Your task to perform on an android device: turn on wifi Image 0: 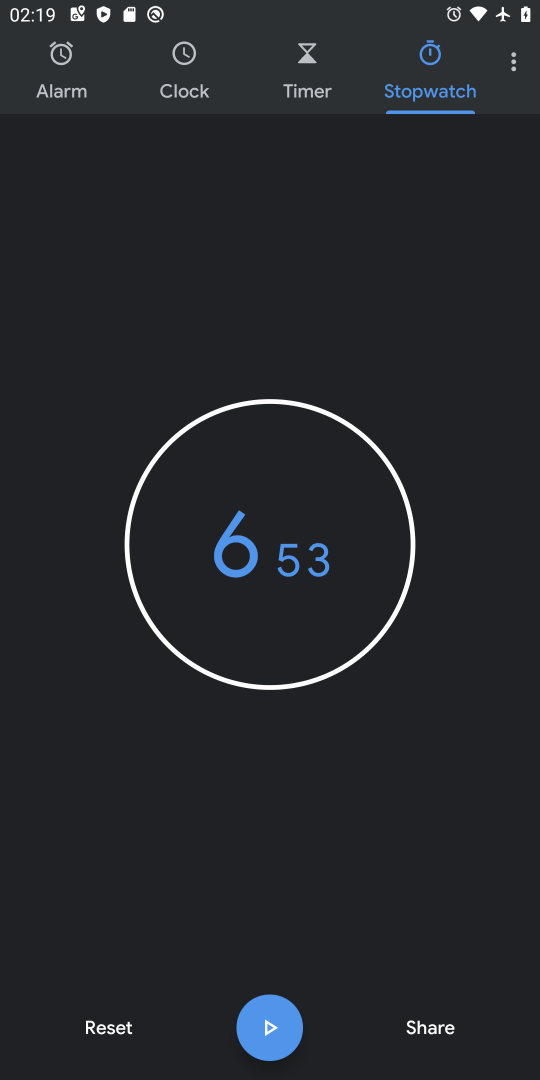
Step 0: press home button
Your task to perform on an android device: turn on wifi Image 1: 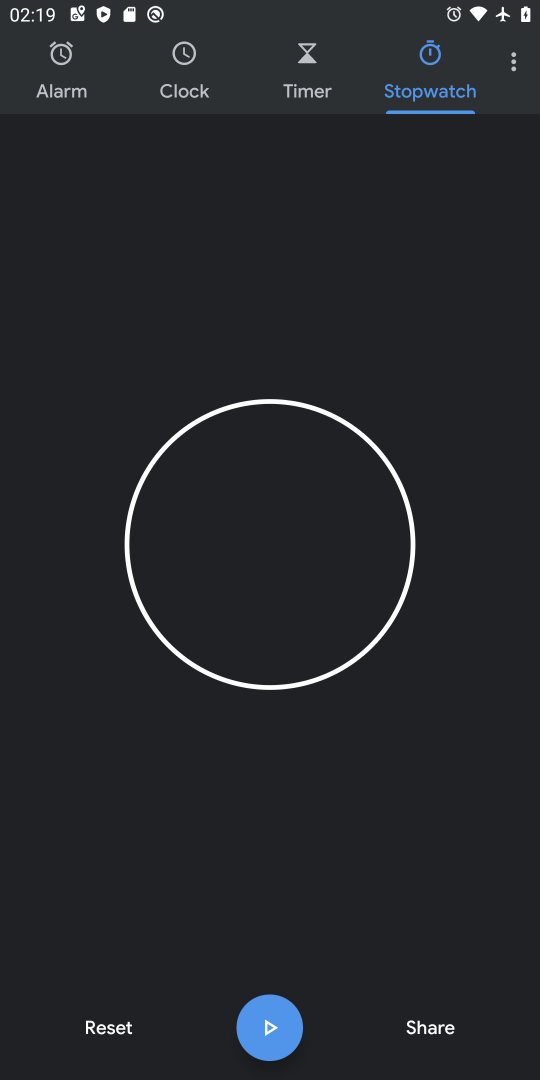
Step 1: press home button
Your task to perform on an android device: turn on wifi Image 2: 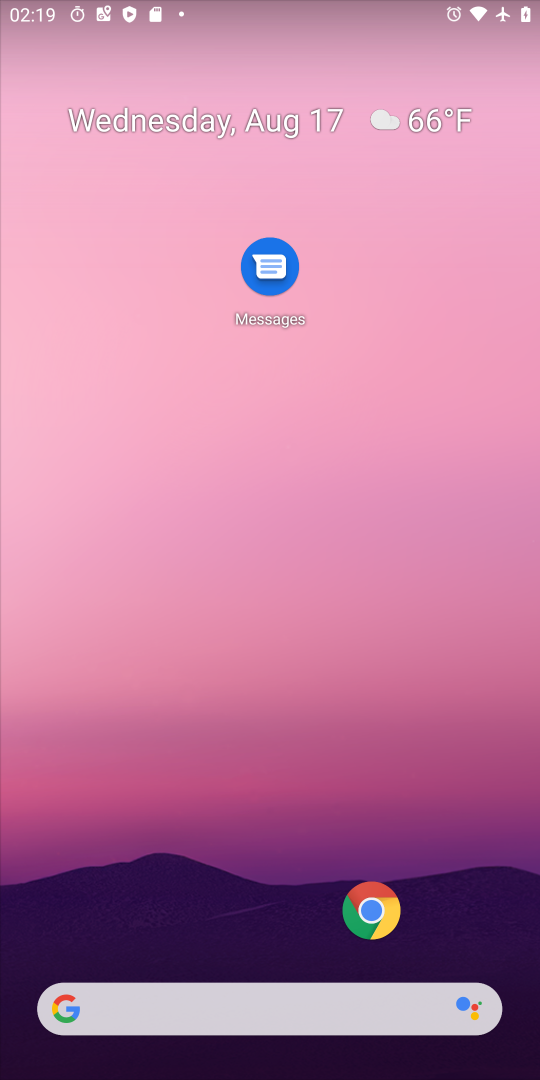
Step 2: drag from (197, 832) to (248, 81)
Your task to perform on an android device: turn on wifi Image 3: 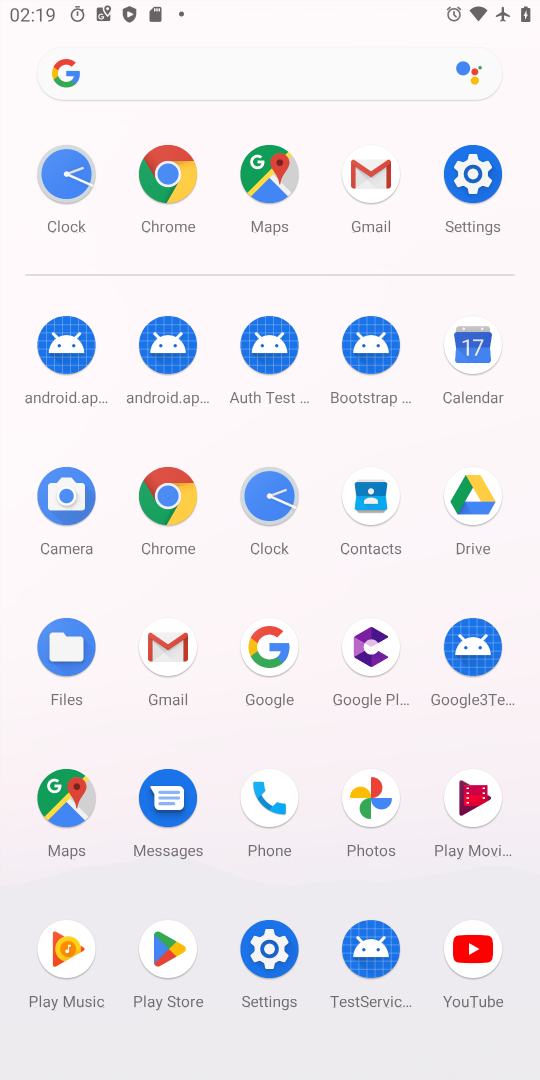
Step 3: click (263, 946)
Your task to perform on an android device: turn on wifi Image 4: 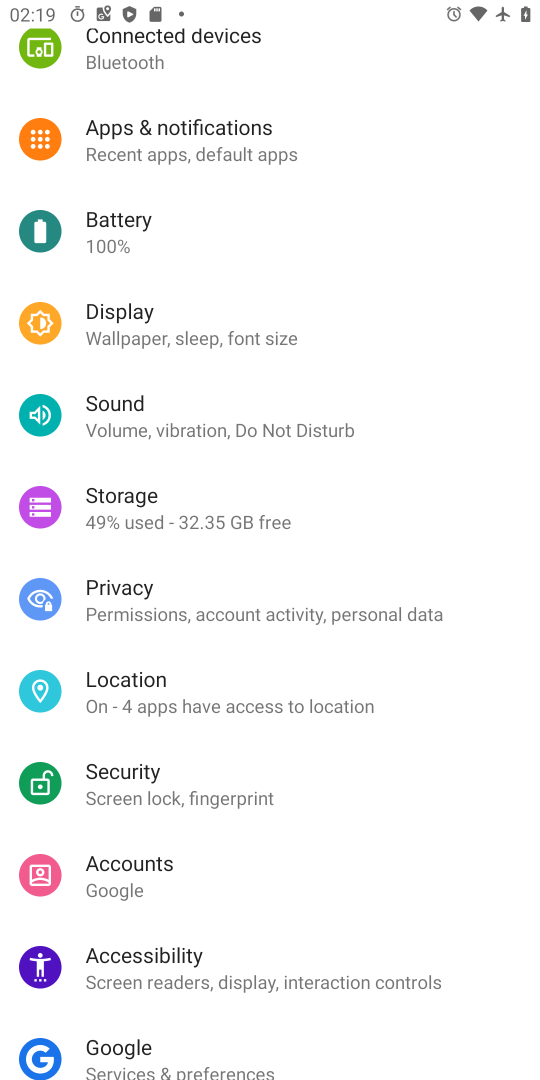
Step 4: drag from (272, 129) to (302, 821)
Your task to perform on an android device: turn on wifi Image 5: 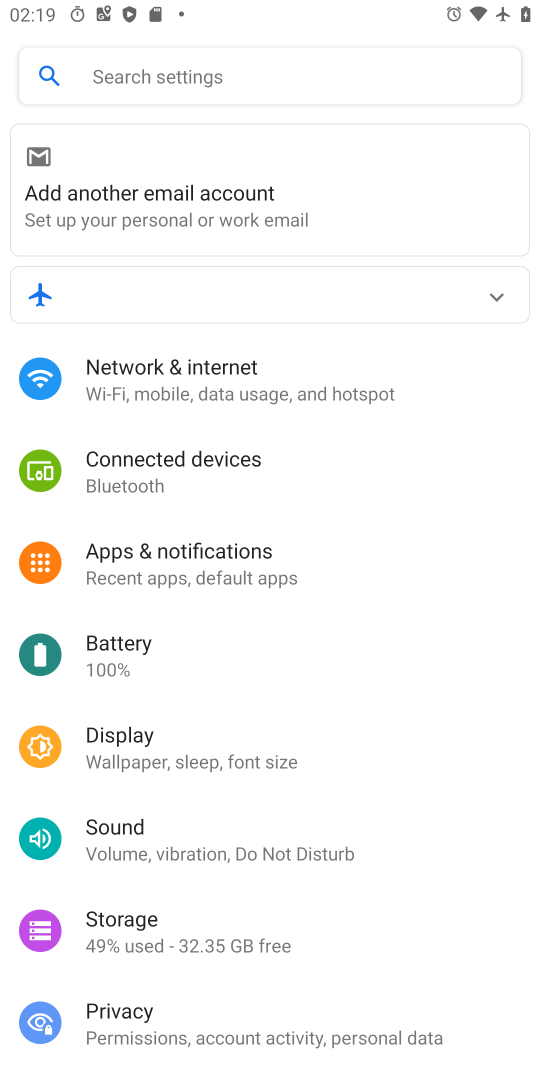
Step 5: click (265, 392)
Your task to perform on an android device: turn on wifi Image 6: 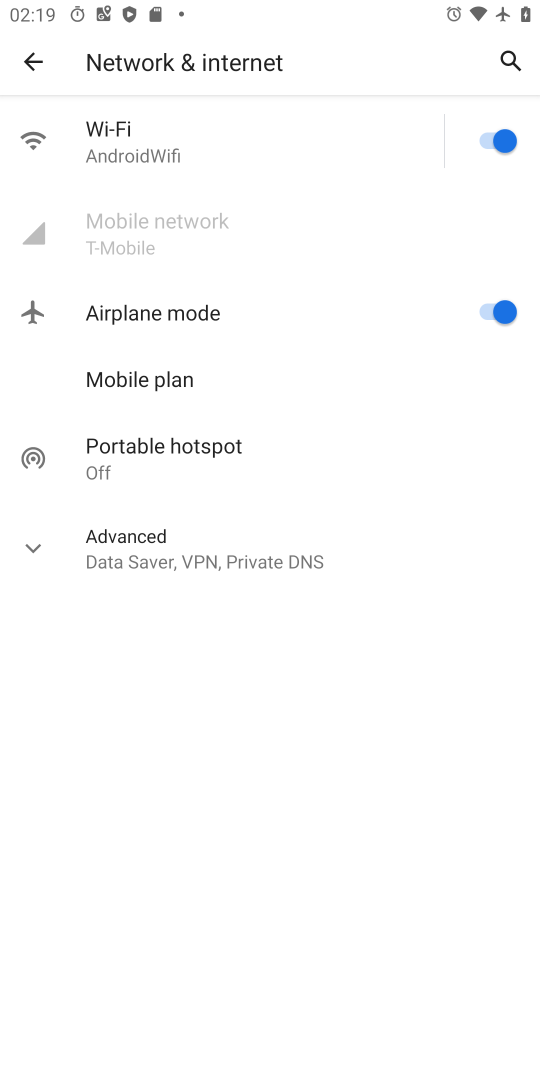
Step 6: task complete